Your task to perform on an android device: change alarm snooze length Image 0: 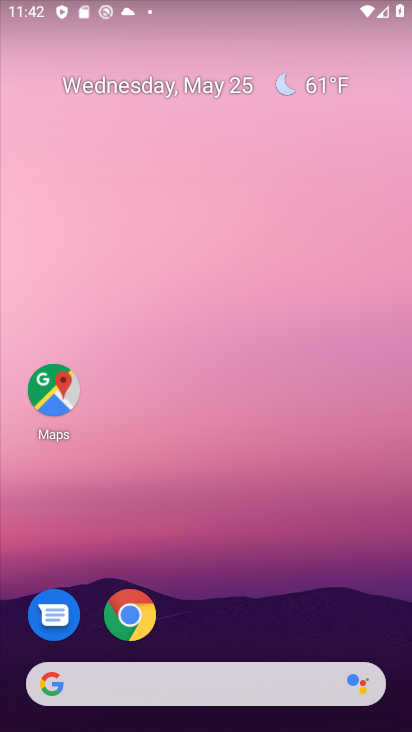
Step 0: drag from (335, 621) to (197, 37)
Your task to perform on an android device: change alarm snooze length Image 1: 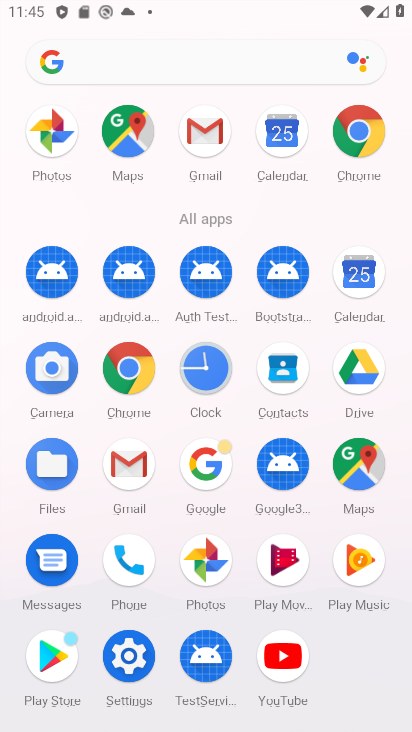
Step 1: click (210, 370)
Your task to perform on an android device: change alarm snooze length Image 2: 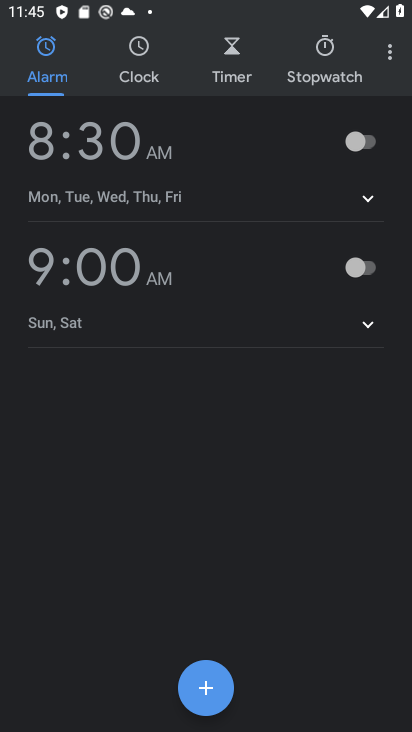
Step 2: click (391, 50)
Your task to perform on an android device: change alarm snooze length Image 3: 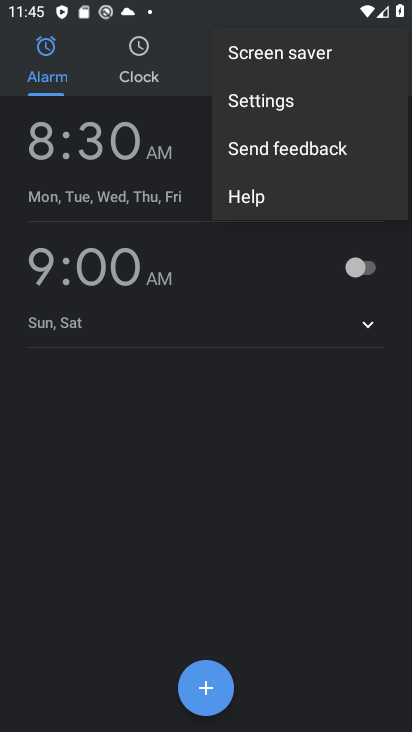
Step 3: click (307, 105)
Your task to perform on an android device: change alarm snooze length Image 4: 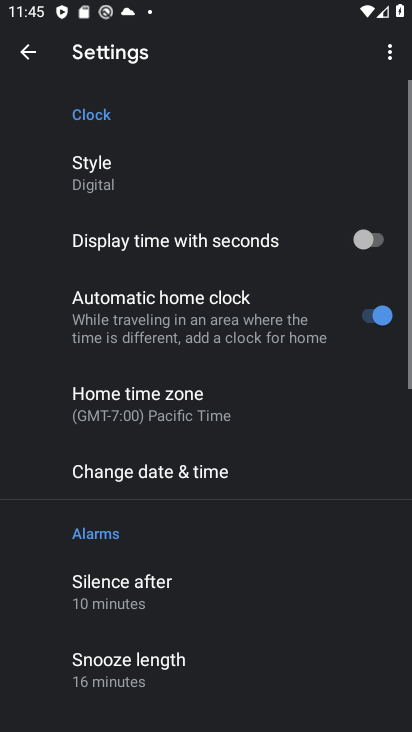
Step 4: click (185, 663)
Your task to perform on an android device: change alarm snooze length Image 5: 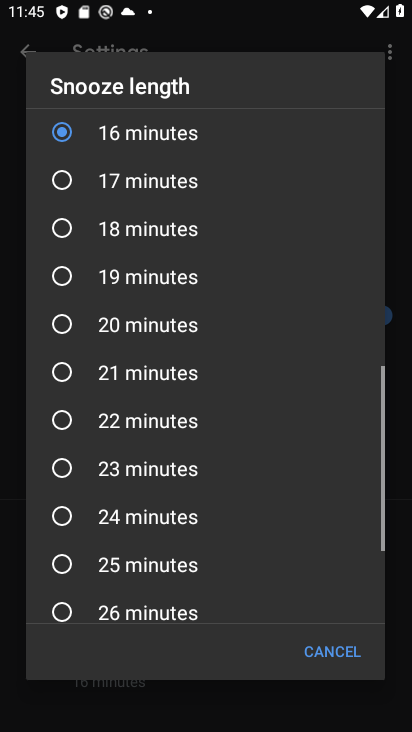
Step 5: click (150, 392)
Your task to perform on an android device: change alarm snooze length Image 6: 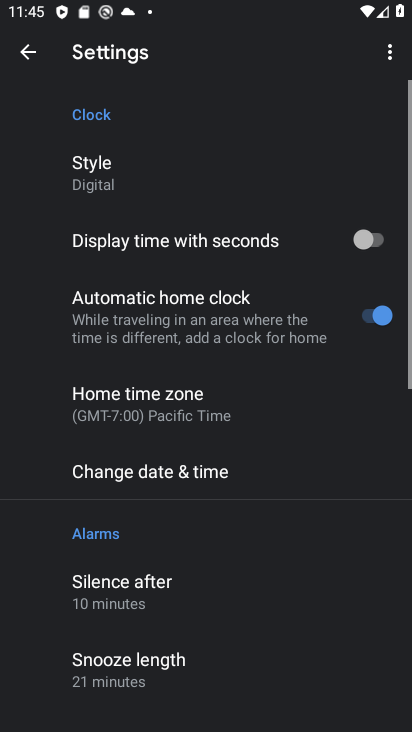
Step 6: task complete